Your task to perform on an android device: Go to location settings Image 0: 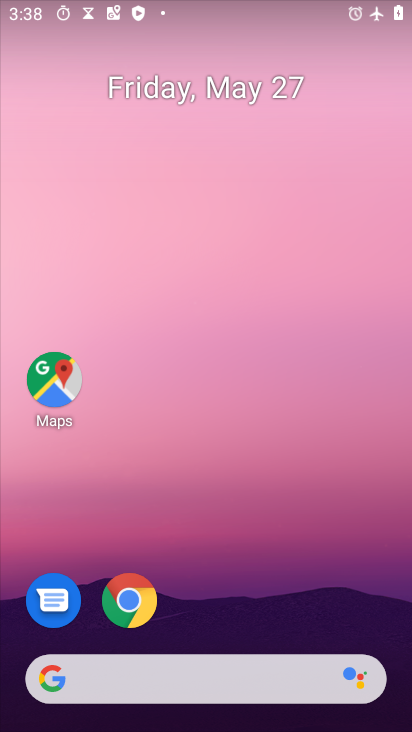
Step 0: drag from (254, 544) to (209, 27)
Your task to perform on an android device: Go to location settings Image 1: 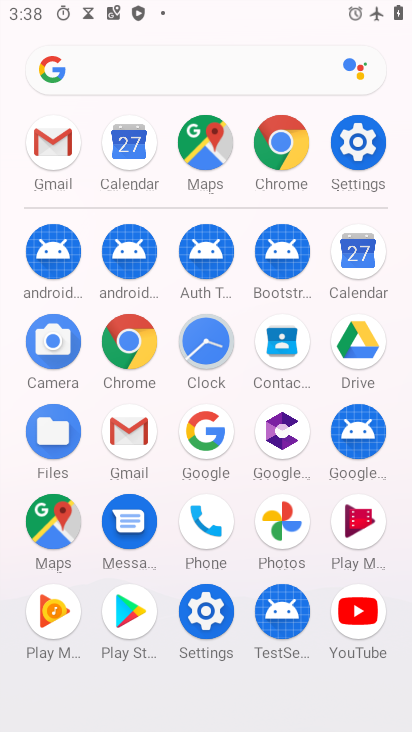
Step 1: drag from (18, 587) to (18, 216)
Your task to perform on an android device: Go to location settings Image 2: 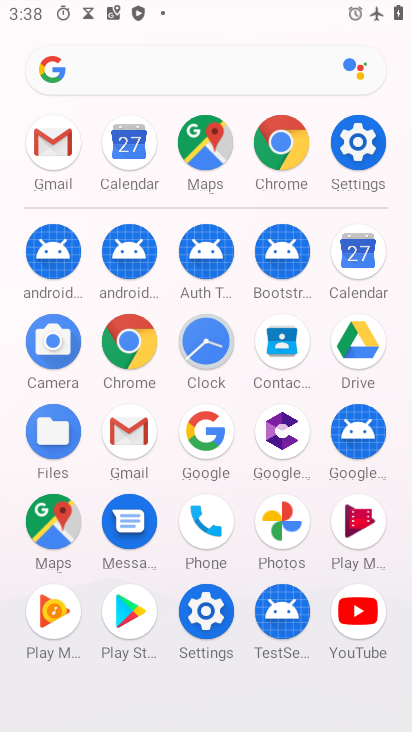
Step 2: click (205, 610)
Your task to perform on an android device: Go to location settings Image 3: 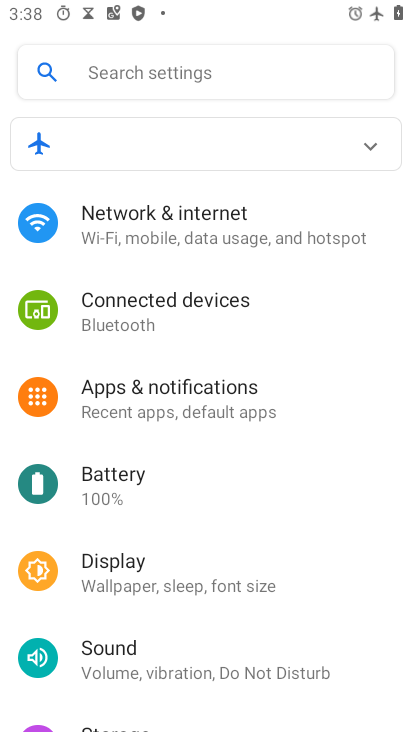
Step 3: drag from (240, 571) to (268, 175)
Your task to perform on an android device: Go to location settings Image 4: 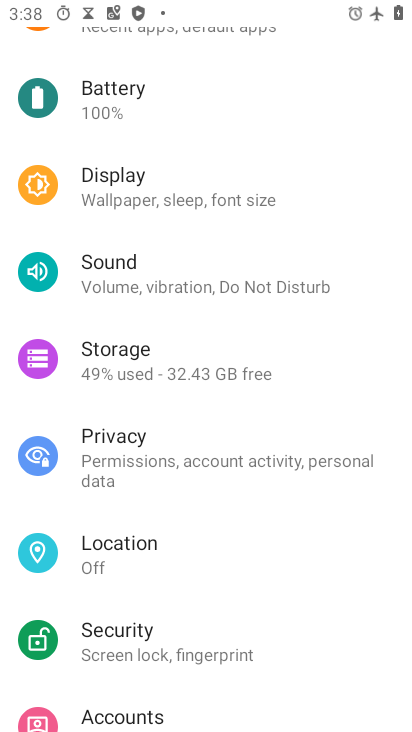
Step 4: drag from (248, 586) to (267, 141)
Your task to perform on an android device: Go to location settings Image 5: 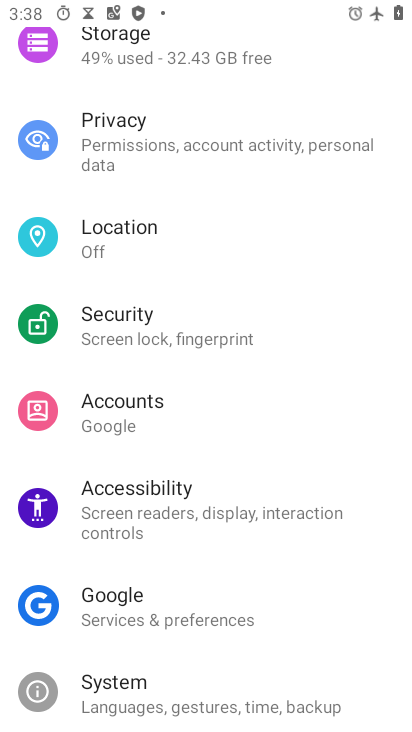
Step 5: drag from (206, 492) to (222, 242)
Your task to perform on an android device: Go to location settings Image 6: 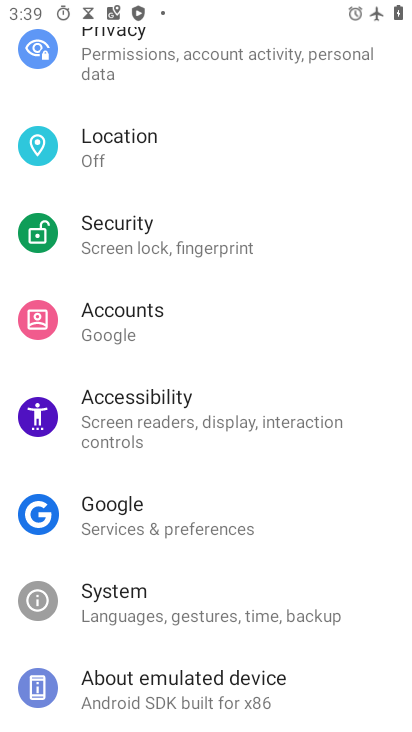
Step 6: click (119, 141)
Your task to perform on an android device: Go to location settings Image 7: 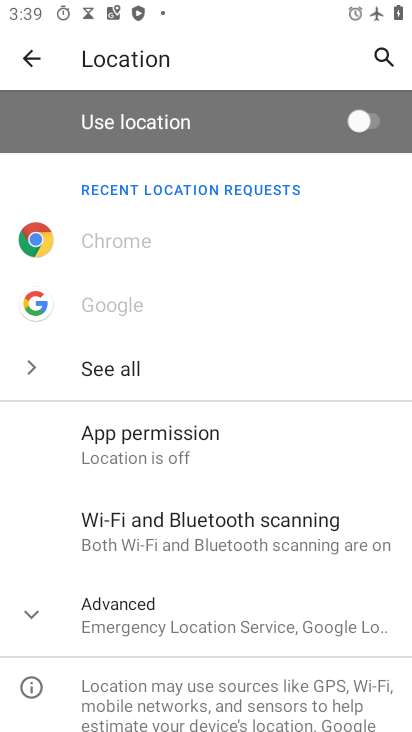
Step 7: click (46, 608)
Your task to perform on an android device: Go to location settings Image 8: 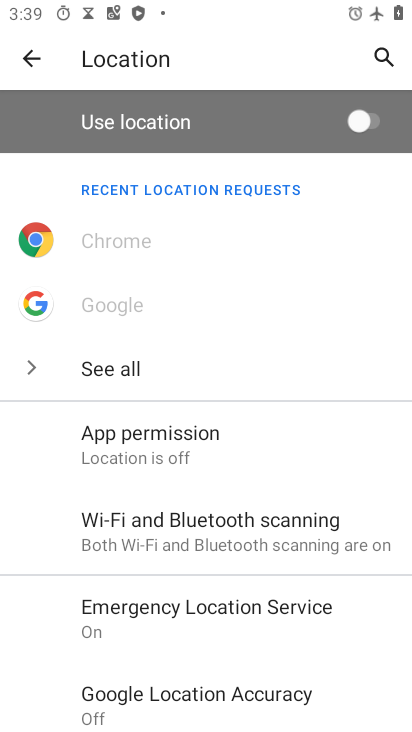
Step 8: task complete